Your task to perform on an android device: turn on sleep mode Image 0: 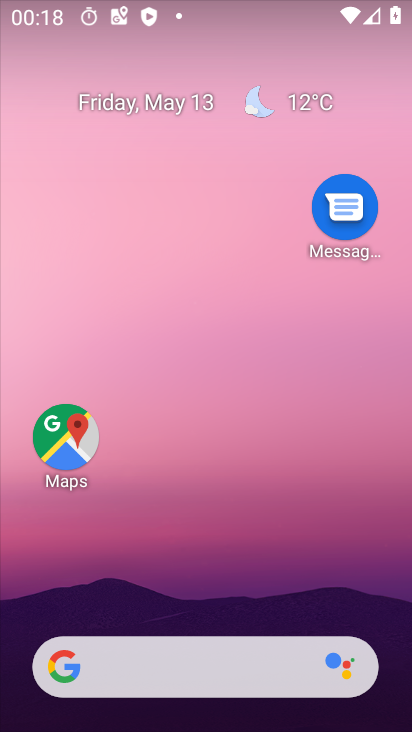
Step 0: press home button
Your task to perform on an android device: turn on sleep mode Image 1: 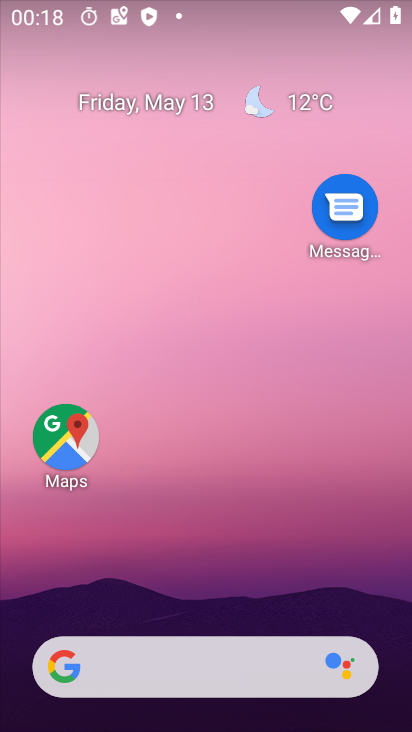
Step 1: press home button
Your task to perform on an android device: turn on sleep mode Image 2: 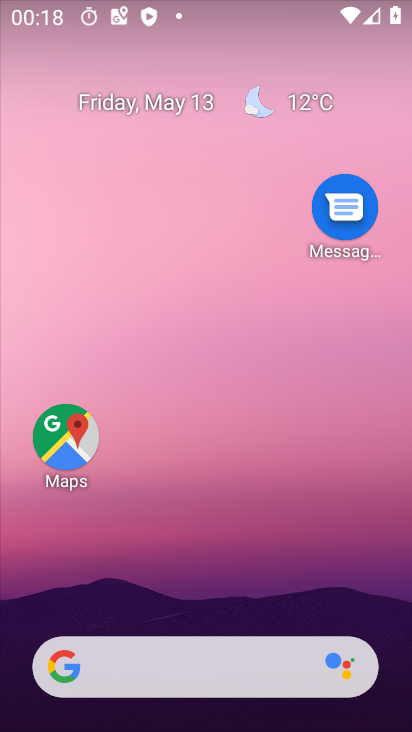
Step 2: drag from (330, 584) to (362, 54)
Your task to perform on an android device: turn on sleep mode Image 3: 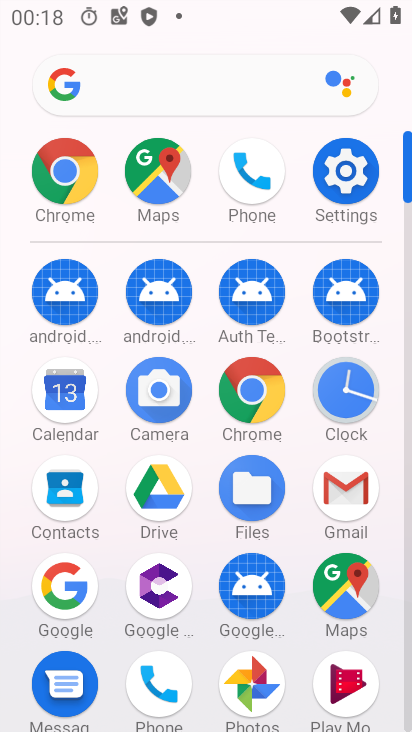
Step 3: click (410, 724)
Your task to perform on an android device: turn on sleep mode Image 4: 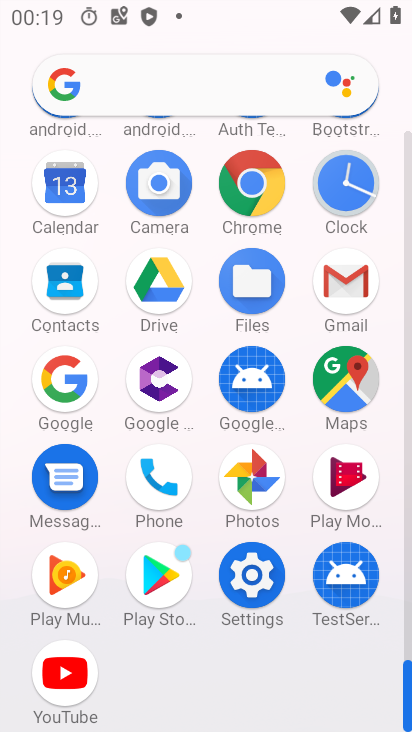
Step 4: click (275, 599)
Your task to perform on an android device: turn on sleep mode Image 5: 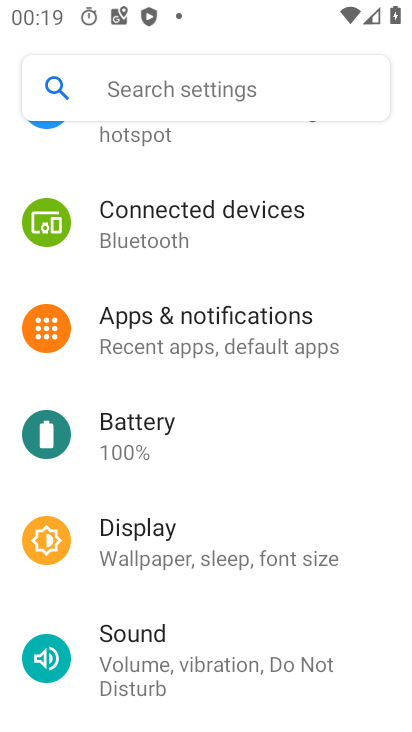
Step 5: click (147, 559)
Your task to perform on an android device: turn on sleep mode Image 6: 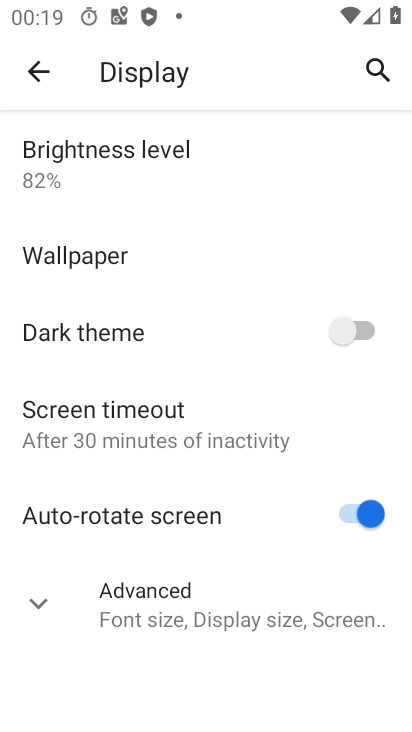
Step 6: task complete